Your task to perform on an android device: empty trash in the gmail app Image 0: 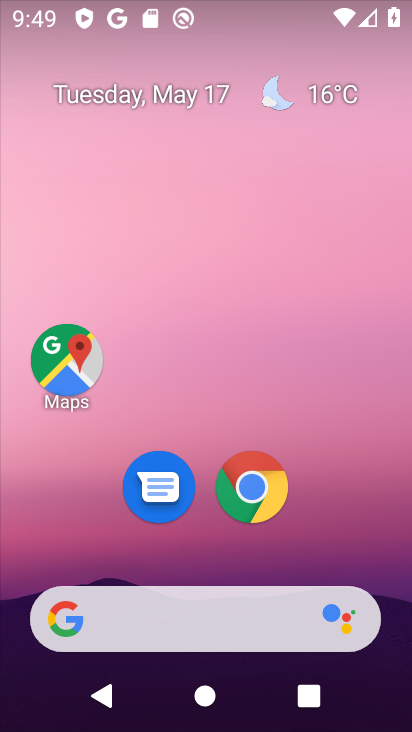
Step 0: click (377, 389)
Your task to perform on an android device: empty trash in the gmail app Image 1: 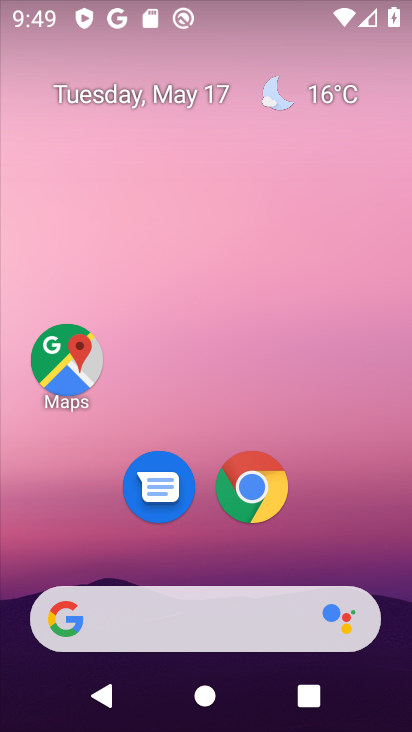
Step 1: drag from (391, 663) to (364, 436)
Your task to perform on an android device: empty trash in the gmail app Image 2: 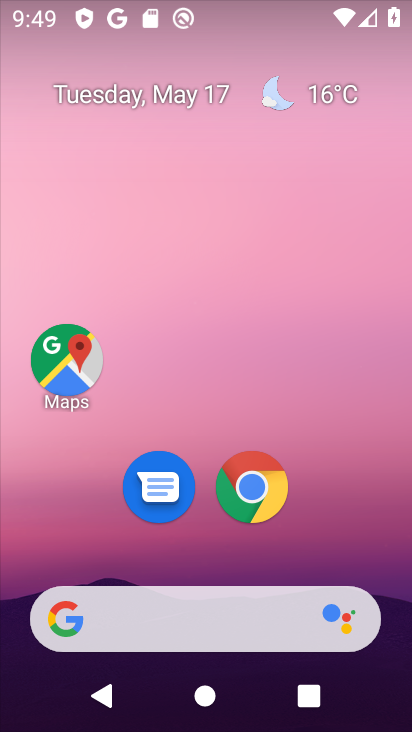
Step 2: drag from (393, 568) to (408, 89)
Your task to perform on an android device: empty trash in the gmail app Image 3: 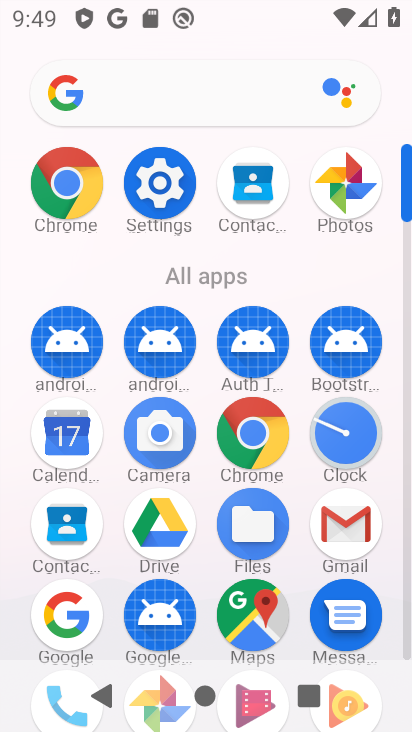
Step 3: click (359, 515)
Your task to perform on an android device: empty trash in the gmail app Image 4: 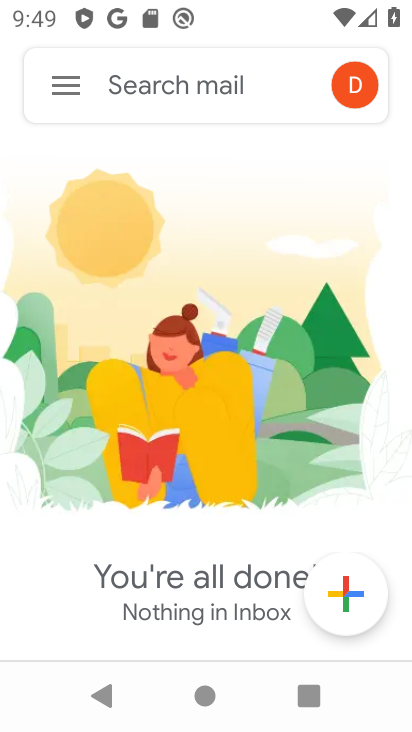
Step 4: click (61, 86)
Your task to perform on an android device: empty trash in the gmail app Image 5: 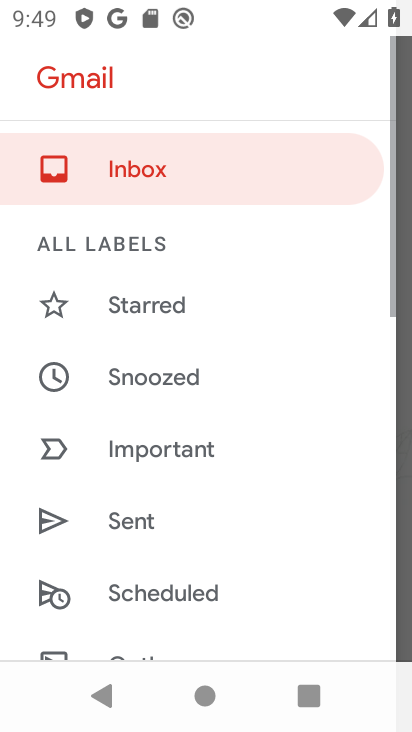
Step 5: drag from (276, 605) to (271, 301)
Your task to perform on an android device: empty trash in the gmail app Image 6: 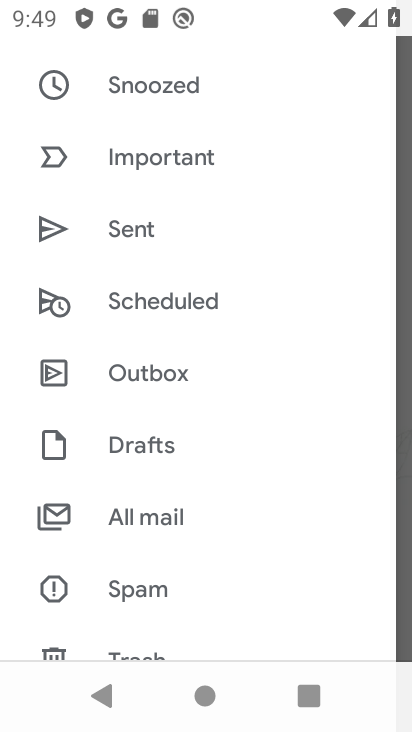
Step 6: drag from (255, 611) to (248, 381)
Your task to perform on an android device: empty trash in the gmail app Image 7: 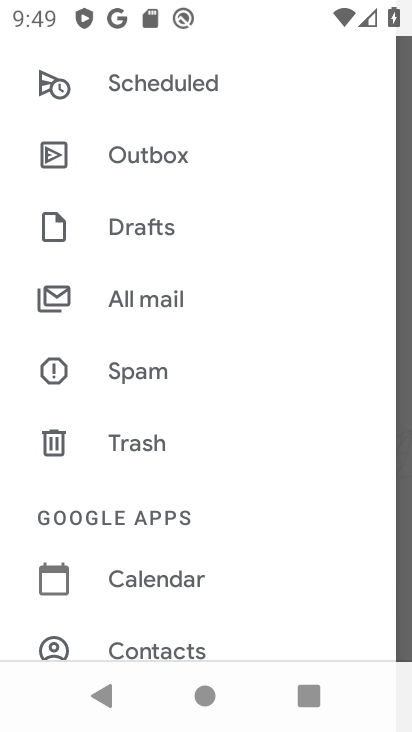
Step 7: click (142, 436)
Your task to perform on an android device: empty trash in the gmail app Image 8: 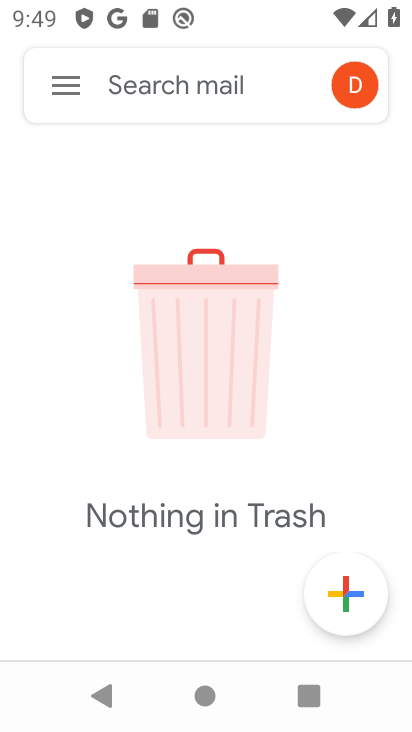
Step 8: task complete